Your task to perform on an android device: change timer sound Image 0: 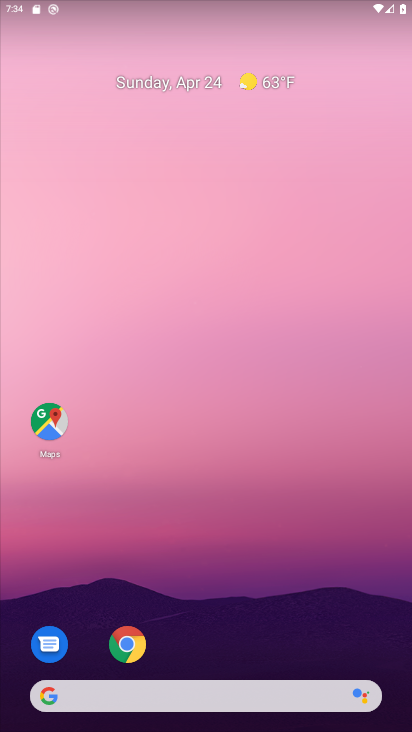
Step 0: drag from (209, 641) to (245, 39)
Your task to perform on an android device: change timer sound Image 1: 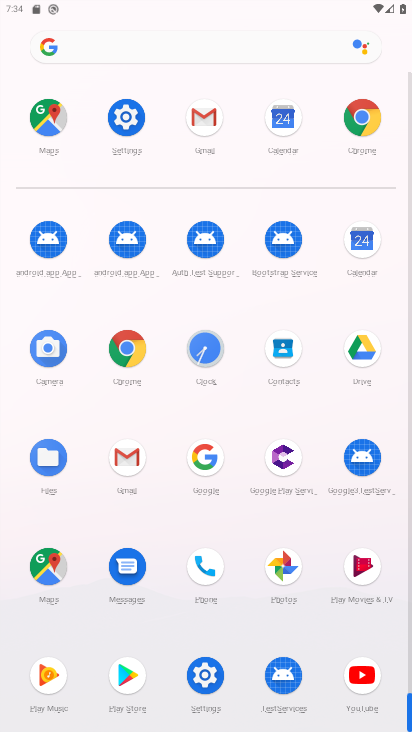
Step 1: click (204, 344)
Your task to perform on an android device: change timer sound Image 2: 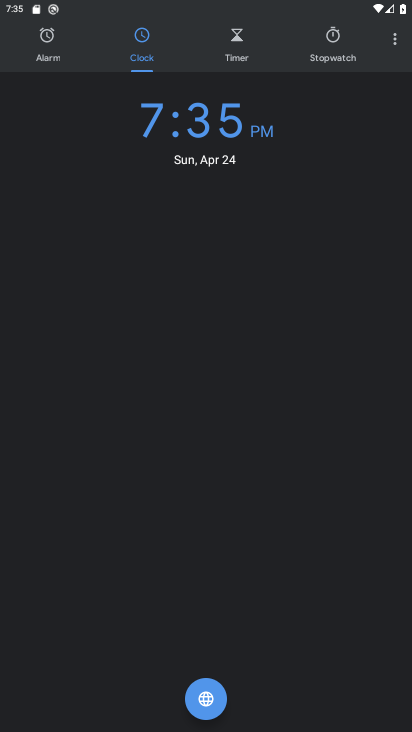
Step 2: click (391, 30)
Your task to perform on an android device: change timer sound Image 3: 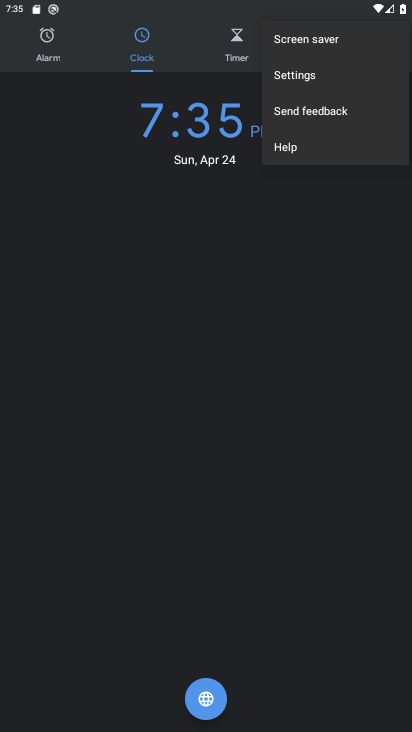
Step 3: click (326, 72)
Your task to perform on an android device: change timer sound Image 4: 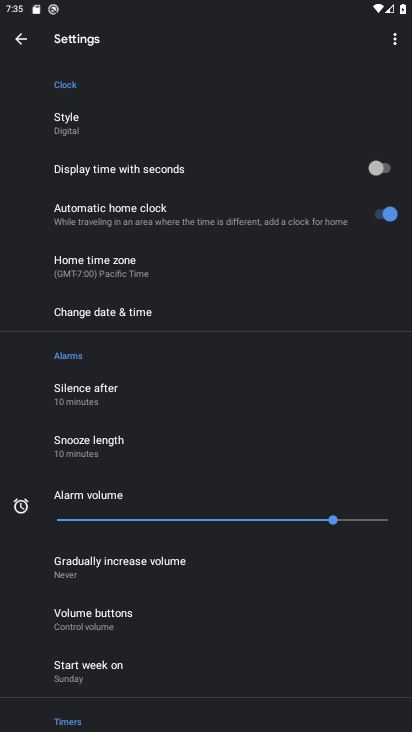
Step 4: drag from (140, 641) to (139, 205)
Your task to perform on an android device: change timer sound Image 5: 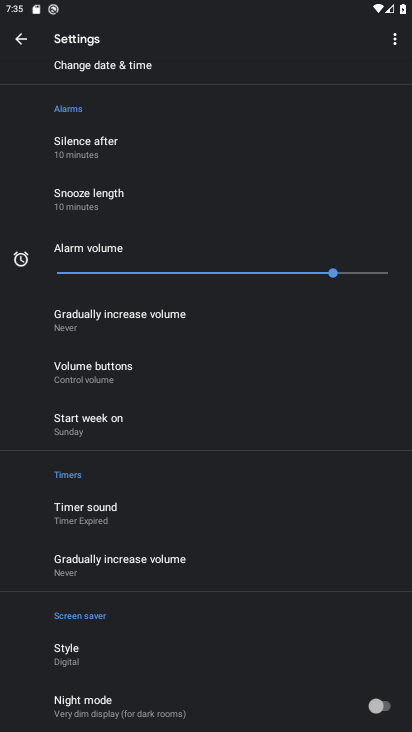
Step 5: click (122, 514)
Your task to perform on an android device: change timer sound Image 6: 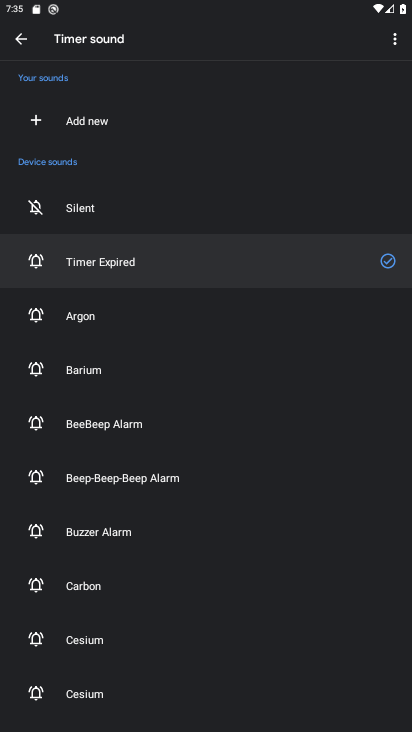
Step 6: click (120, 627)
Your task to perform on an android device: change timer sound Image 7: 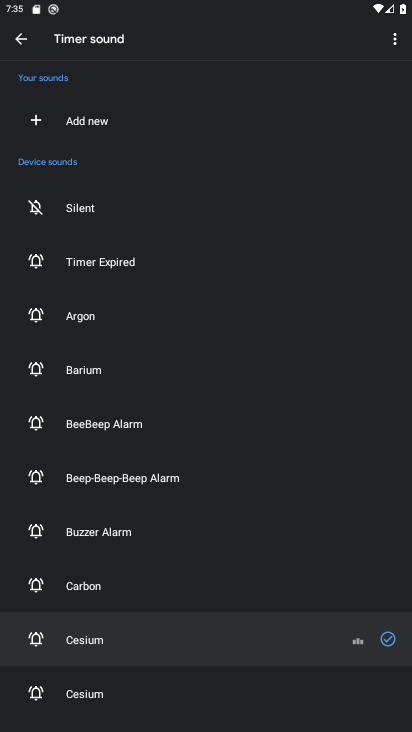
Step 7: task complete